Your task to perform on an android device: Go to Maps Image 0: 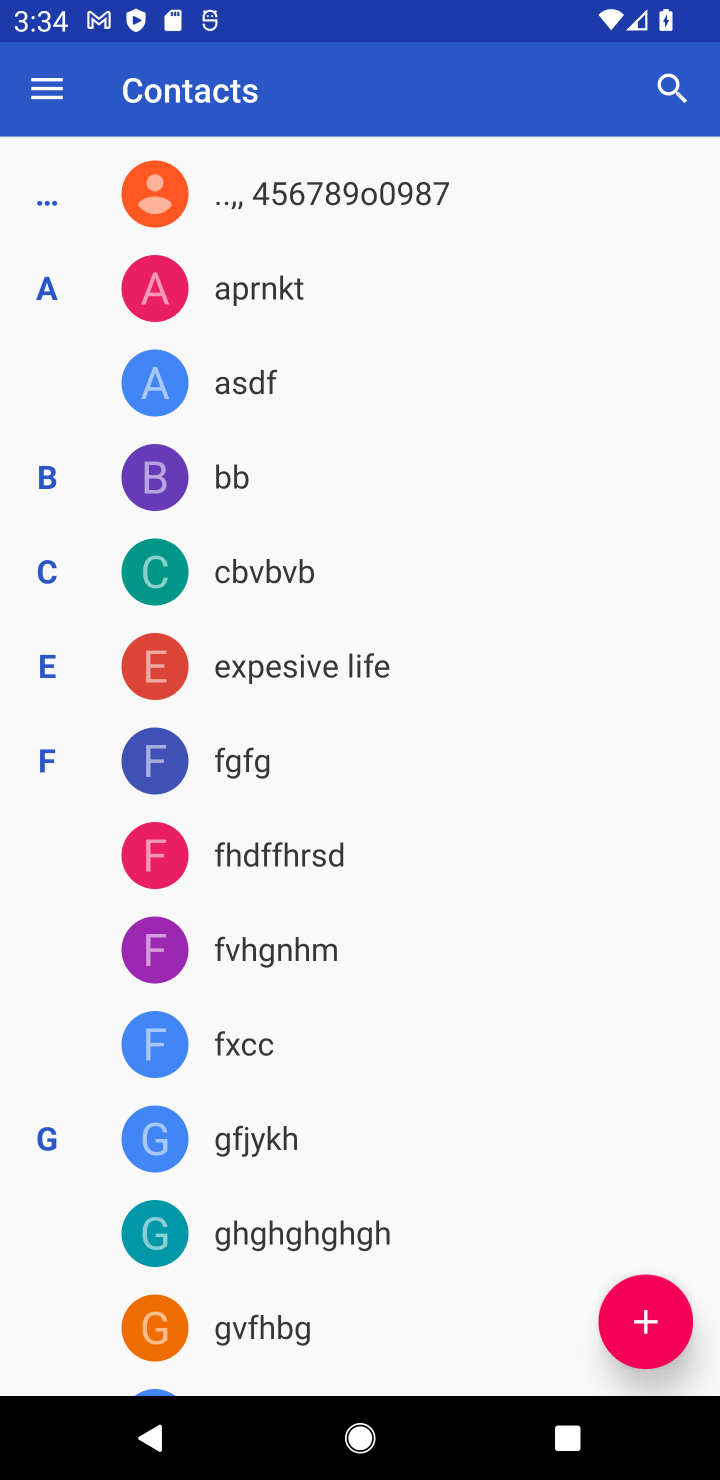
Step 0: task complete